Your task to perform on an android device: Open Reddit.com Image 0: 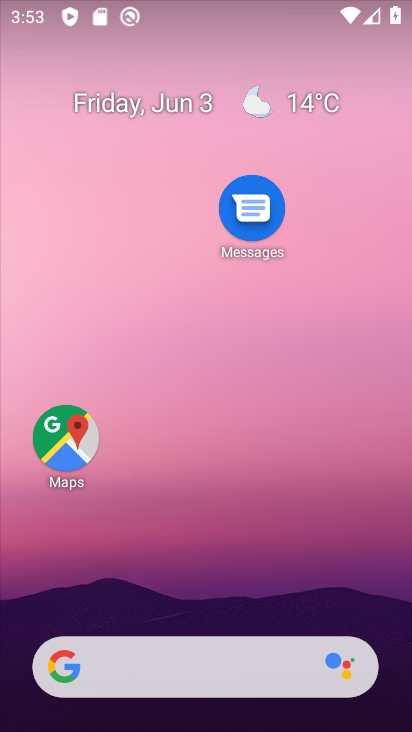
Step 0: drag from (201, 602) to (215, 304)
Your task to perform on an android device: Open Reddit.com Image 1: 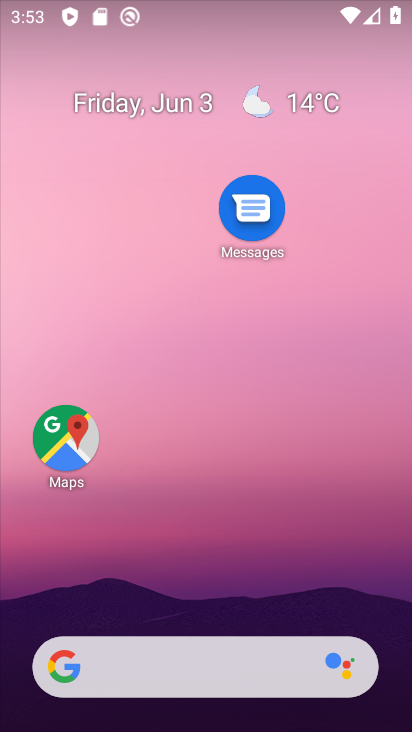
Step 1: drag from (208, 611) to (267, 175)
Your task to perform on an android device: Open Reddit.com Image 2: 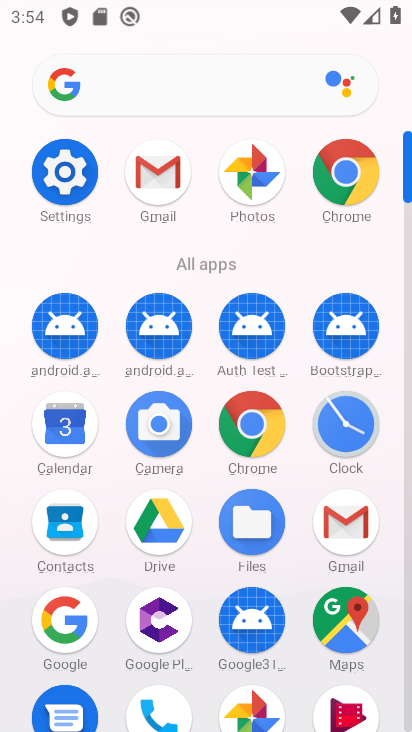
Step 2: click (341, 186)
Your task to perform on an android device: Open Reddit.com Image 3: 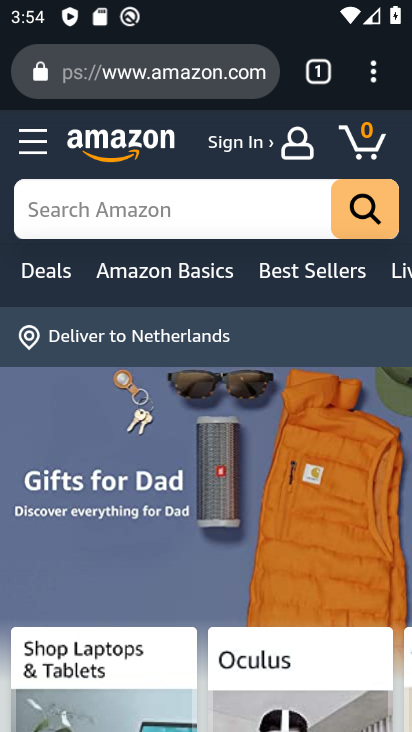
Step 3: press back button
Your task to perform on an android device: Open Reddit.com Image 4: 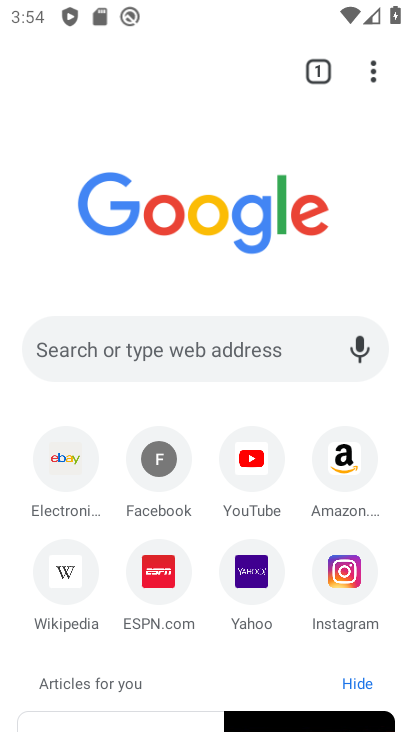
Step 4: click (207, 339)
Your task to perform on an android device: Open Reddit.com Image 5: 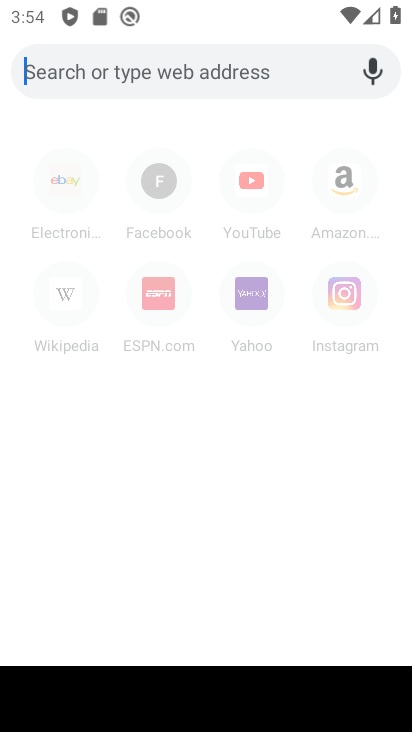
Step 5: type "www.reddit.com"
Your task to perform on an android device: Open Reddit.com Image 6: 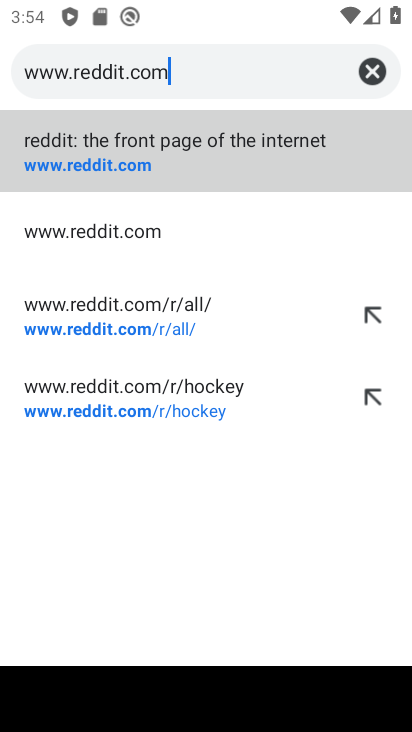
Step 6: click (140, 173)
Your task to perform on an android device: Open Reddit.com Image 7: 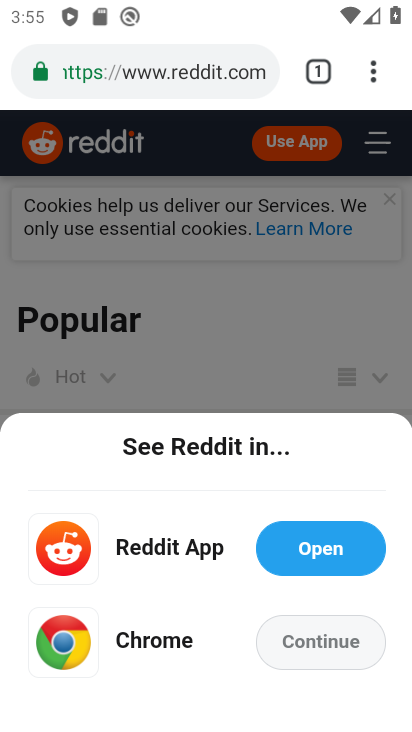
Step 7: task complete